Your task to perform on an android device: empty trash in google photos Image 0: 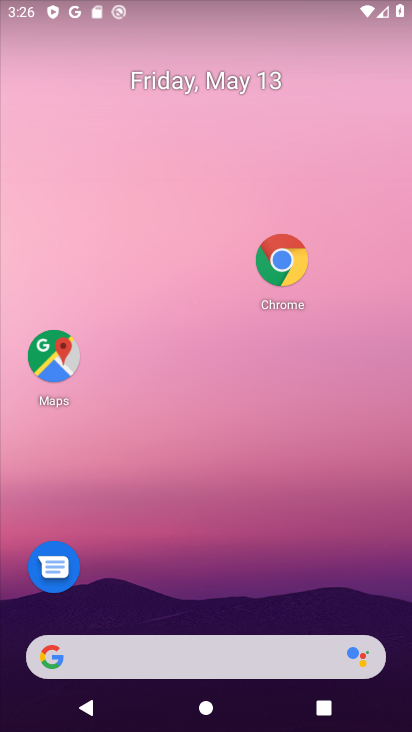
Step 0: drag from (362, 615) to (186, 227)
Your task to perform on an android device: empty trash in google photos Image 1: 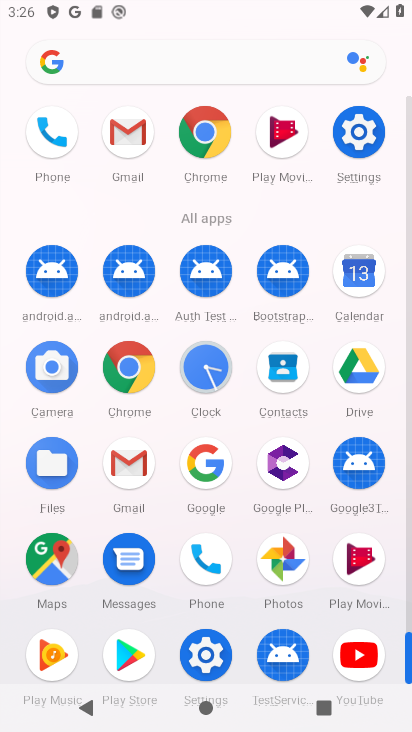
Step 1: click (271, 541)
Your task to perform on an android device: empty trash in google photos Image 2: 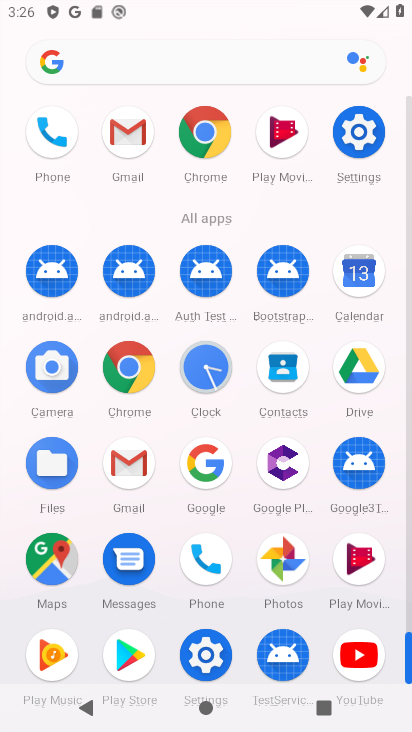
Step 2: click (271, 541)
Your task to perform on an android device: empty trash in google photos Image 3: 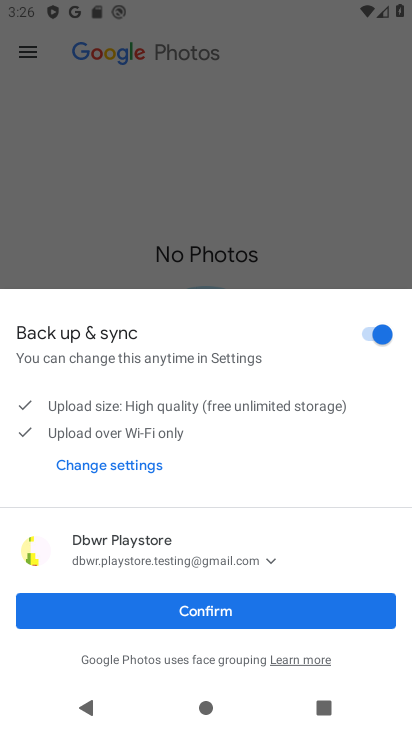
Step 3: click (223, 611)
Your task to perform on an android device: empty trash in google photos Image 4: 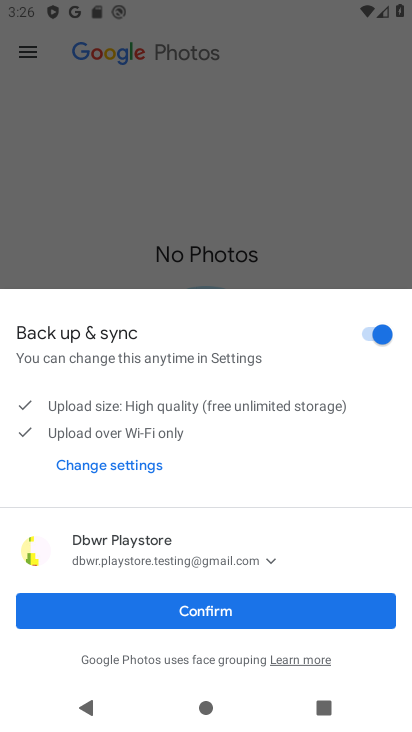
Step 4: click (227, 613)
Your task to perform on an android device: empty trash in google photos Image 5: 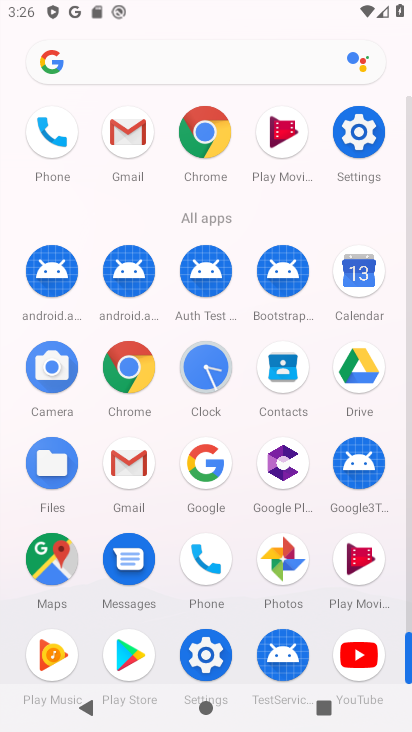
Step 5: click (277, 558)
Your task to perform on an android device: empty trash in google photos Image 6: 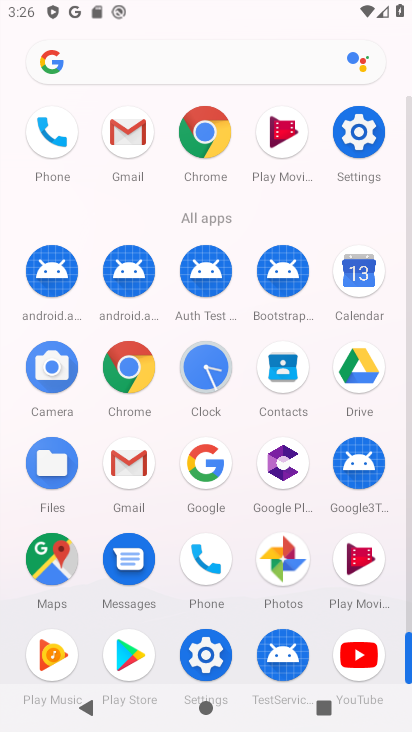
Step 6: click (279, 556)
Your task to perform on an android device: empty trash in google photos Image 7: 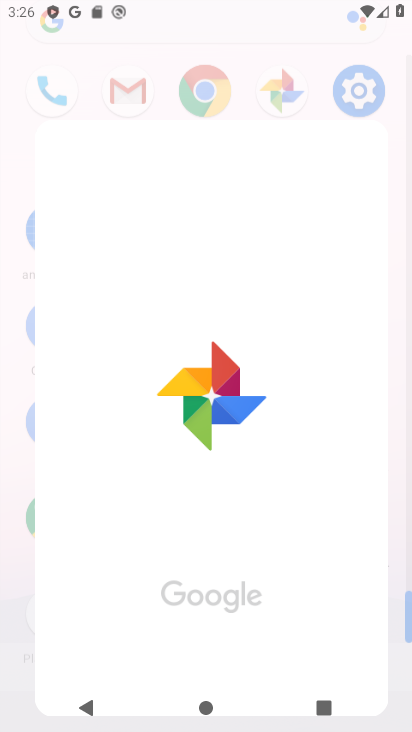
Step 7: click (279, 556)
Your task to perform on an android device: empty trash in google photos Image 8: 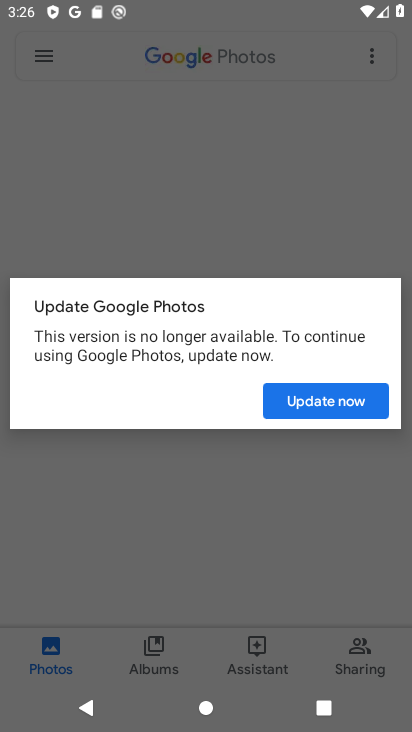
Step 8: click (301, 404)
Your task to perform on an android device: empty trash in google photos Image 9: 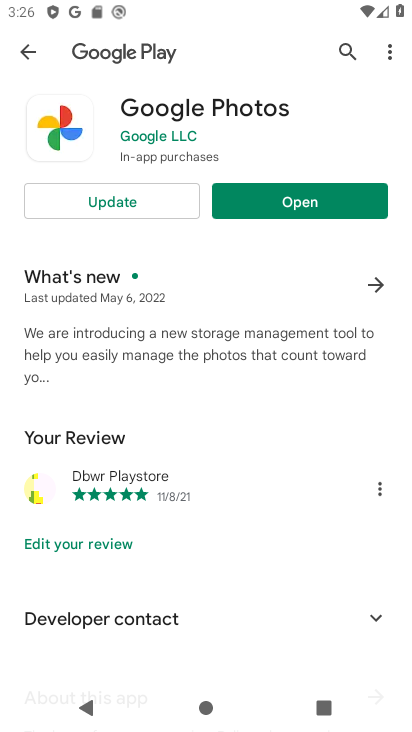
Step 9: click (118, 194)
Your task to perform on an android device: empty trash in google photos Image 10: 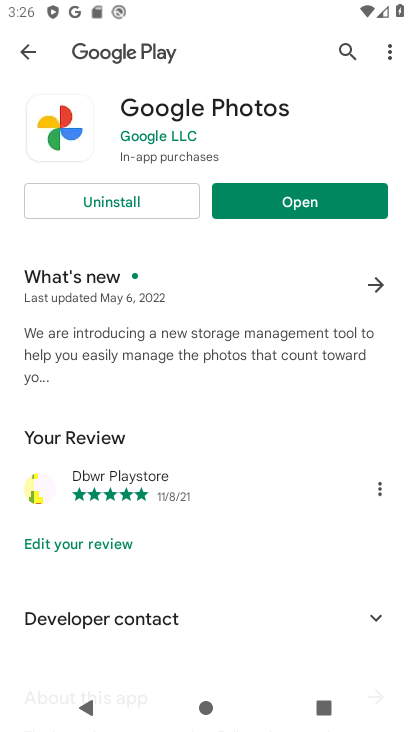
Step 10: click (288, 197)
Your task to perform on an android device: empty trash in google photos Image 11: 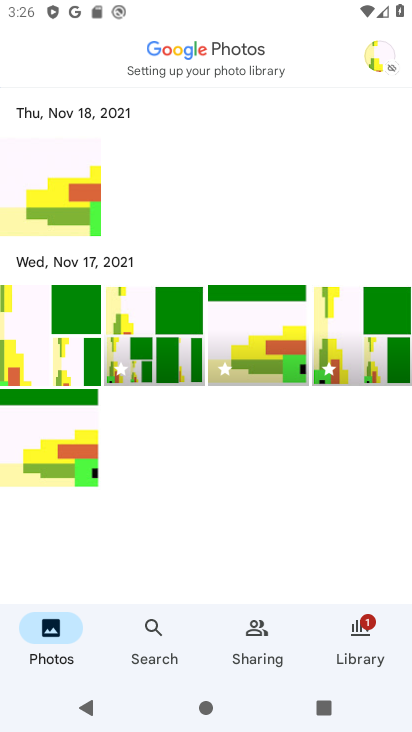
Step 11: drag from (164, 398) to (241, 119)
Your task to perform on an android device: empty trash in google photos Image 12: 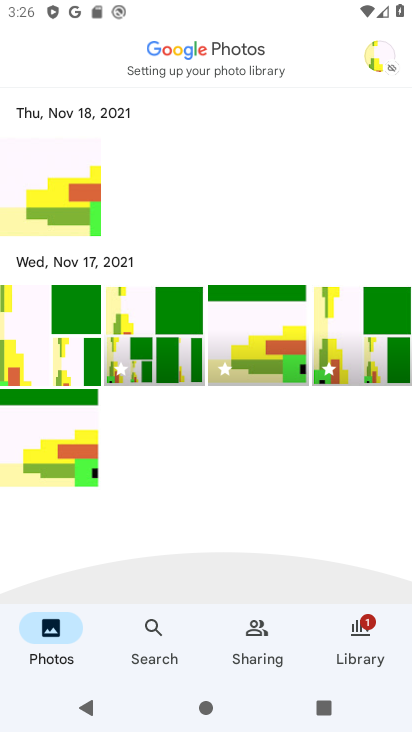
Step 12: drag from (266, 475) to (314, 168)
Your task to perform on an android device: empty trash in google photos Image 13: 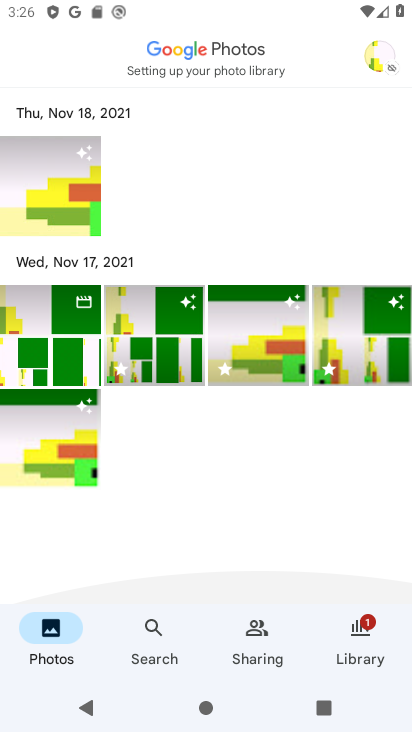
Step 13: drag from (191, 555) to (128, 207)
Your task to perform on an android device: empty trash in google photos Image 14: 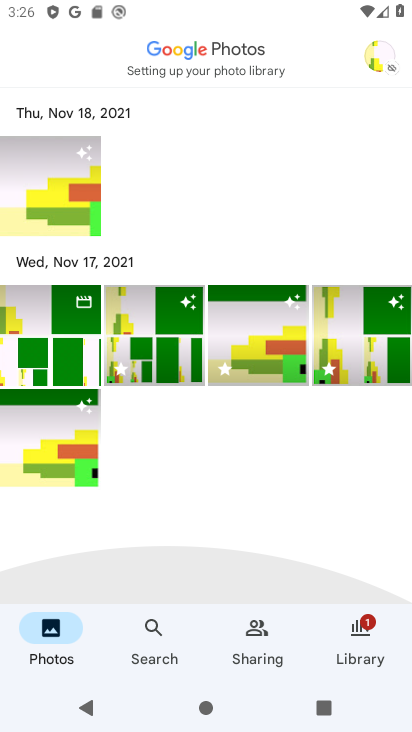
Step 14: drag from (147, 434) to (210, 555)
Your task to perform on an android device: empty trash in google photos Image 15: 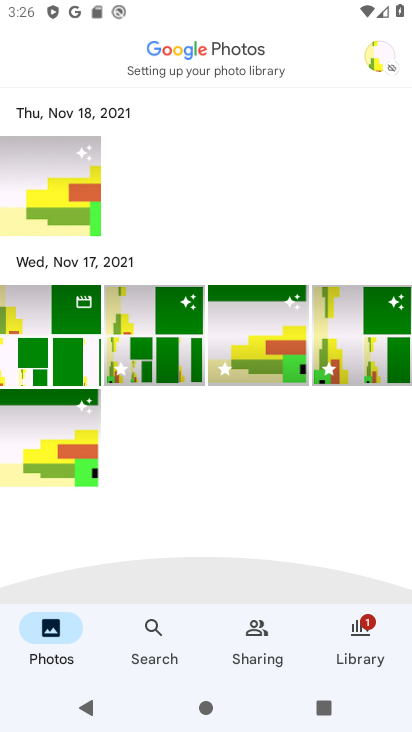
Step 15: drag from (53, 259) to (154, 497)
Your task to perform on an android device: empty trash in google photos Image 16: 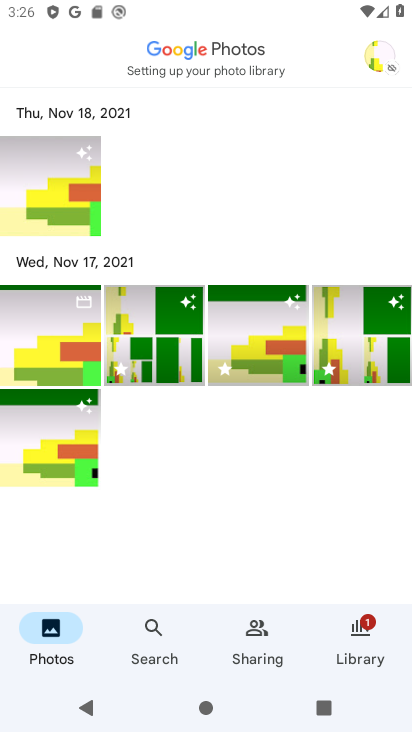
Step 16: click (377, 65)
Your task to perform on an android device: empty trash in google photos Image 17: 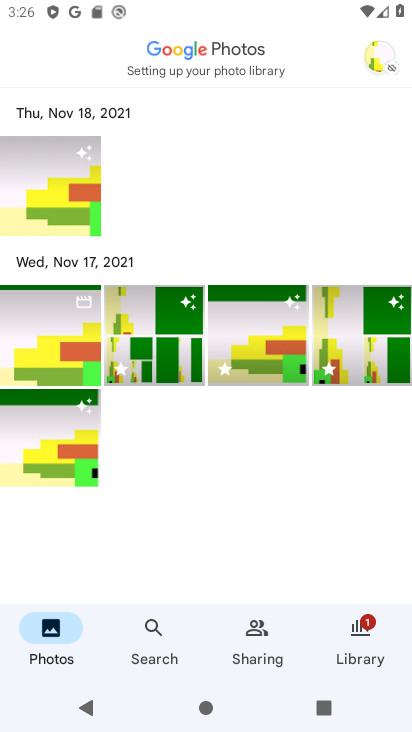
Step 17: click (378, 65)
Your task to perform on an android device: empty trash in google photos Image 18: 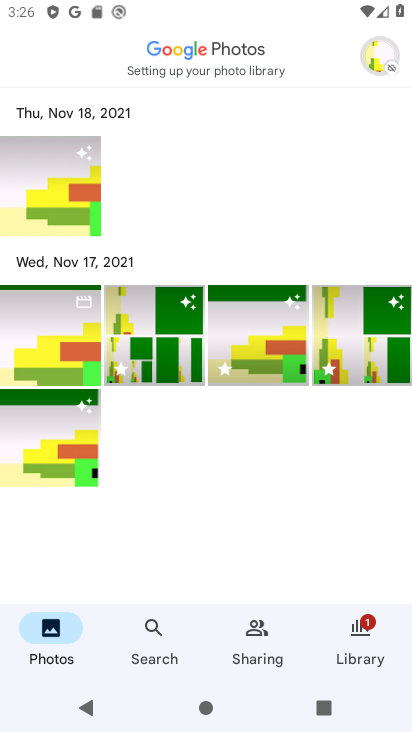
Step 18: click (379, 65)
Your task to perform on an android device: empty trash in google photos Image 19: 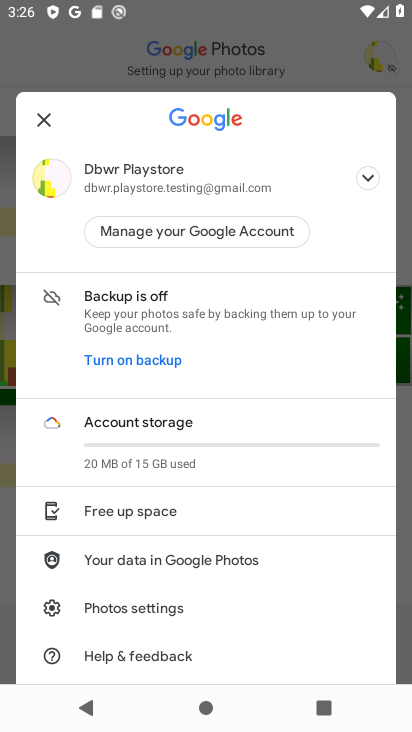
Step 19: click (372, 67)
Your task to perform on an android device: empty trash in google photos Image 20: 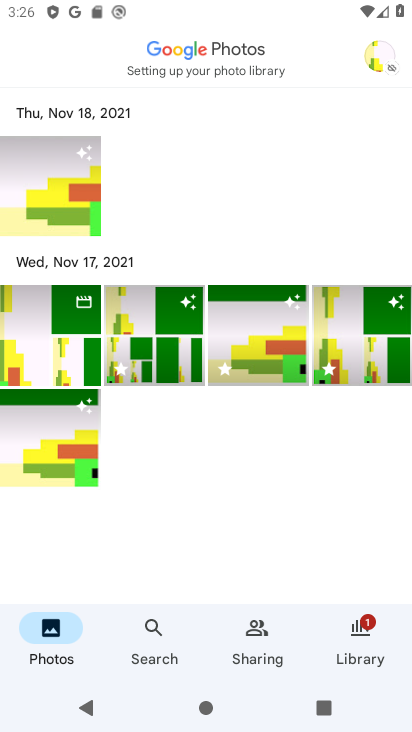
Step 20: drag from (145, 463) to (161, 229)
Your task to perform on an android device: empty trash in google photos Image 21: 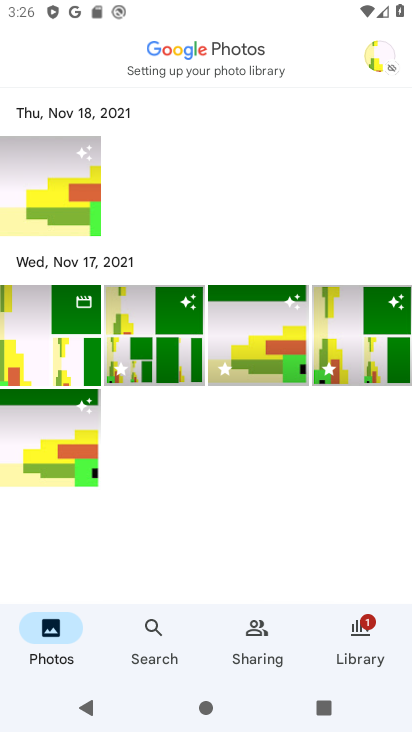
Step 21: click (373, 65)
Your task to perform on an android device: empty trash in google photos Image 22: 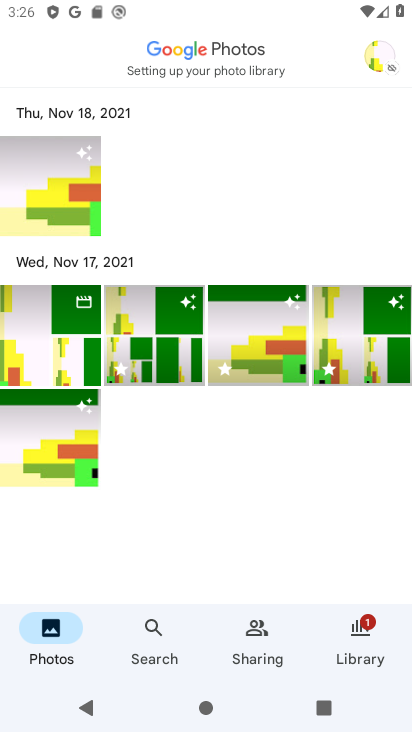
Step 22: click (373, 65)
Your task to perform on an android device: empty trash in google photos Image 23: 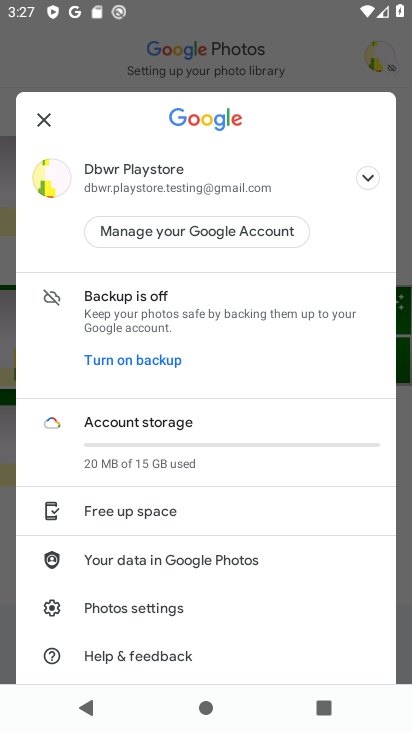
Step 23: task complete